Your task to perform on an android device: turn off location history Image 0: 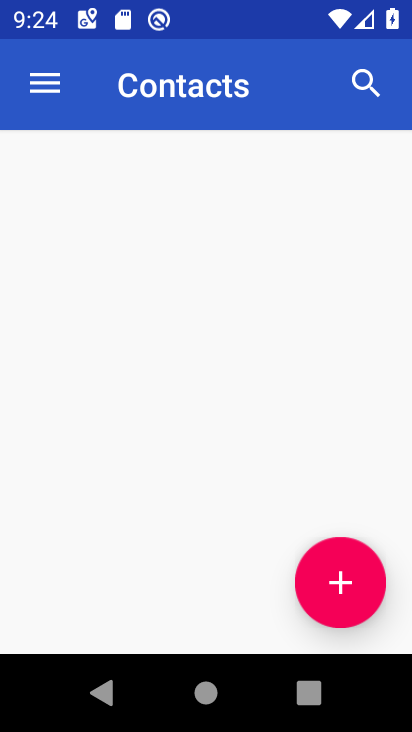
Step 0: drag from (391, 540) to (392, 102)
Your task to perform on an android device: turn off location history Image 1: 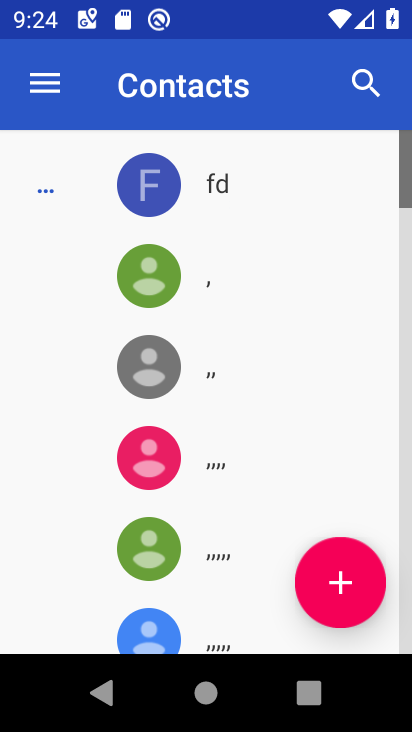
Step 1: press home button
Your task to perform on an android device: turn off location history Image 2: 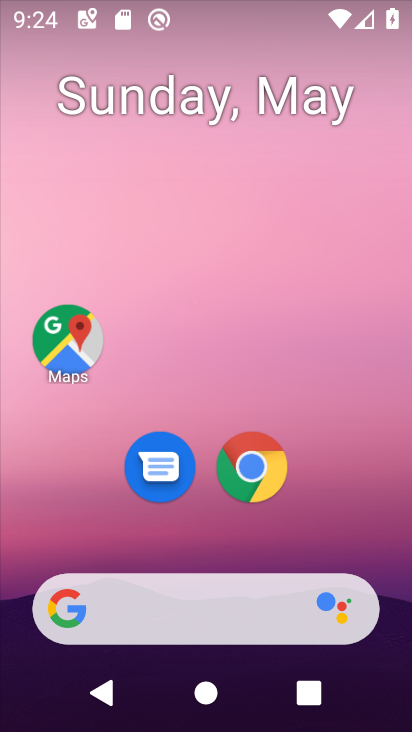
Step 2: drag from (357, 559) to (376, 139)
Your task to perform on an android device: turn off location history Image 3: 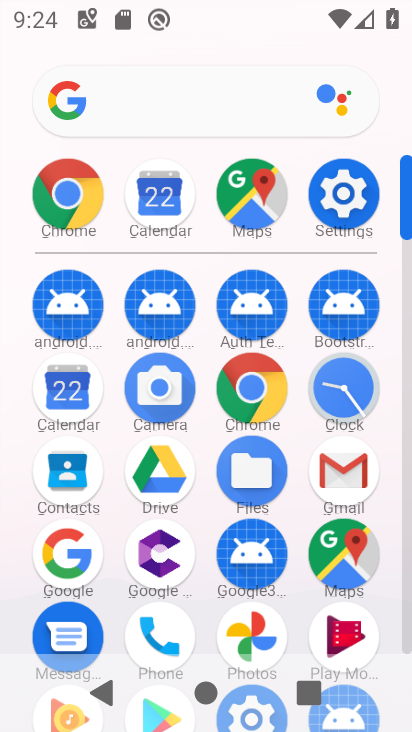
Step 3: click (367, 208)
Your task to perform on an android device: turn off location history Image 4: 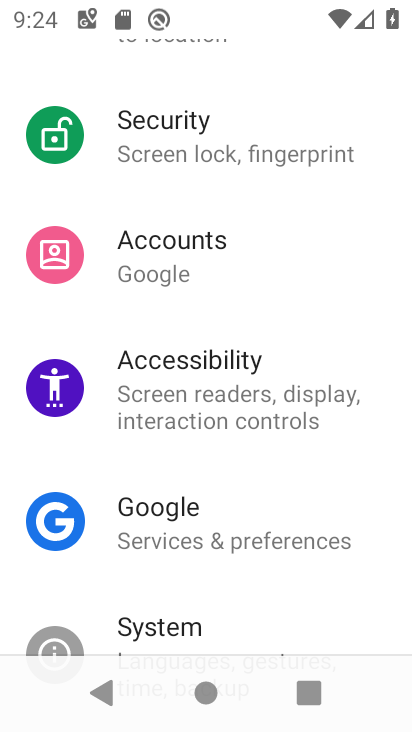
Step 4: drag from (314, 222) to (272, 557)
Your task to perform on an android device: turn off location history Image 5: 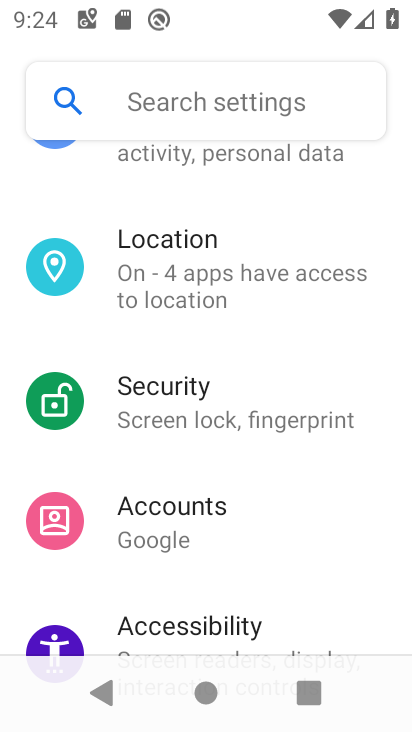
Step 5: click (287, 273)
Your task to perform on an android device: turn off location history Image 6: 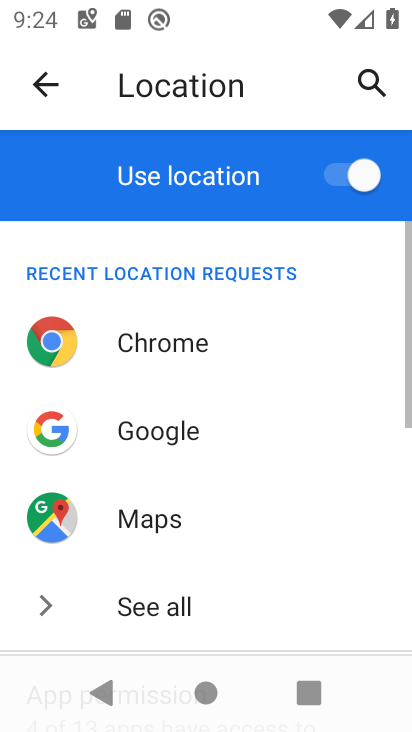
Step 6: task complete